Your task to perform on an android device: open device folders in google photos Image 0: 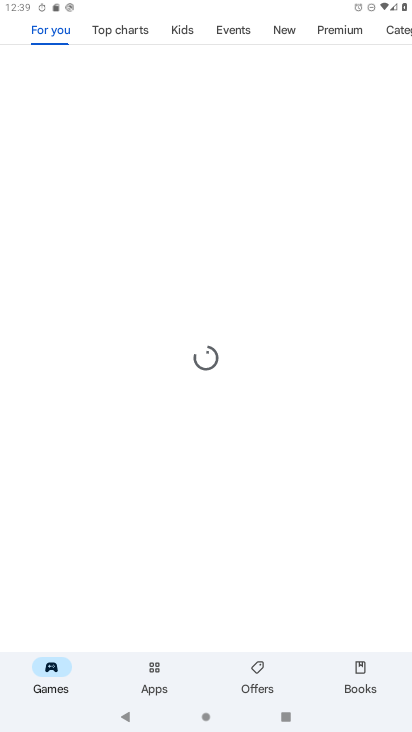
Step 0: drag from (217, 618) to (207, 43)
Your task to perform on an android device: open device folders in google photos Image 1: 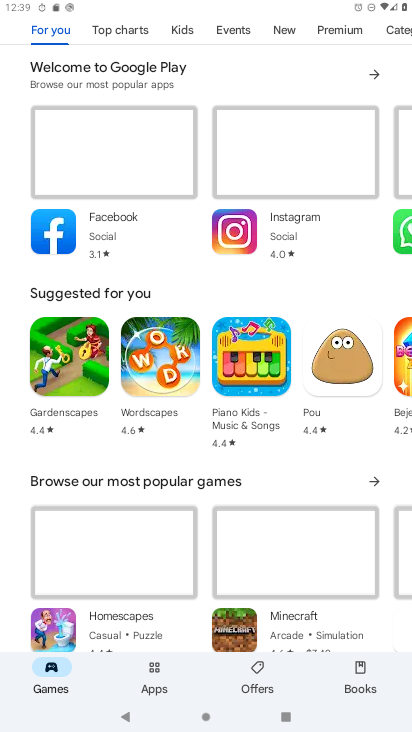
Step 1: press home button
Your task to perform on an android device: open device folders in google photos Image 2: 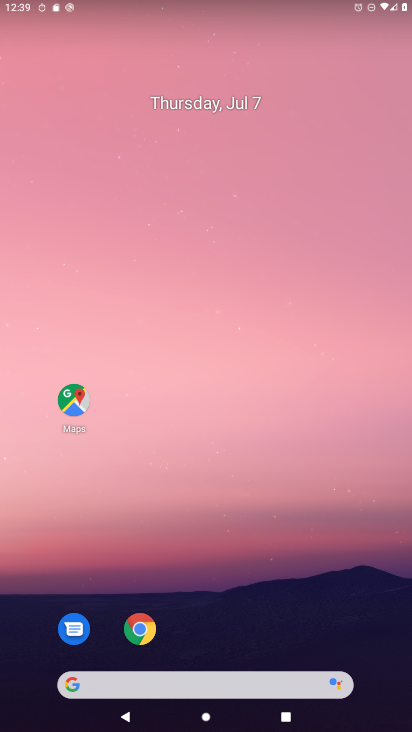
Step 2: drag from (215, 583) to (214, 104)
Your task to perform on an android device: open device folders in google photos Image 3: 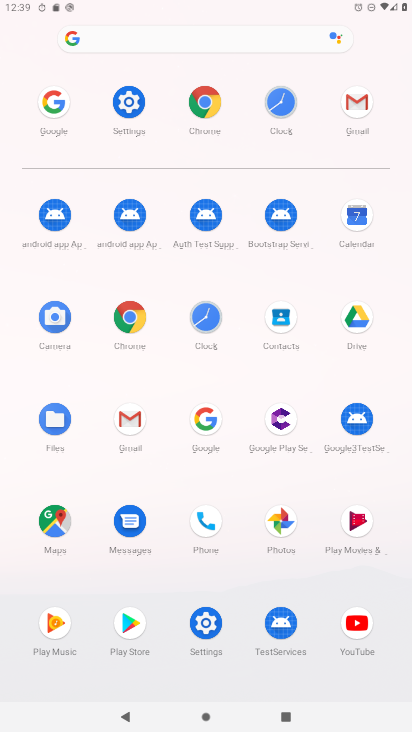
Step 3: click (305, 526)
Your task to perform on an android device: open device folders in google photos Image 4: 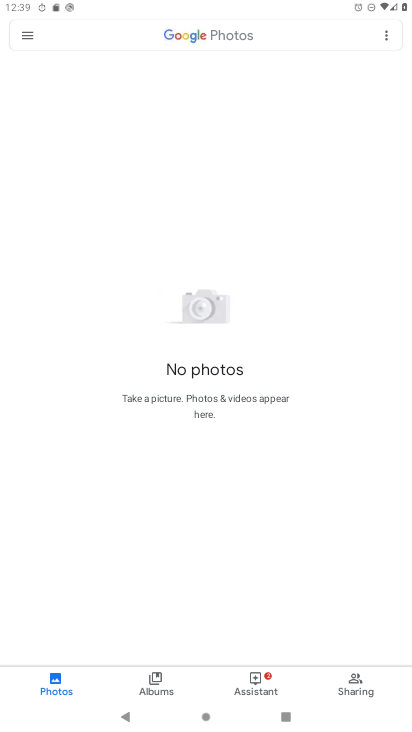
Step 4: click (31, 35)
Your task to perform on an android device: open device folders in google photos Image 5: 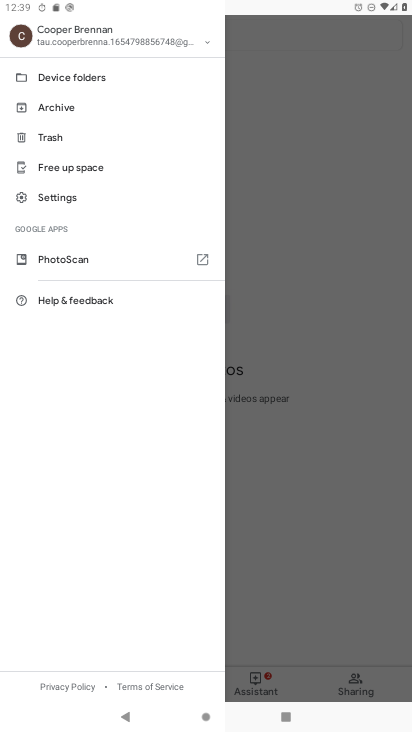
Step 5: click (48, 68)
Your task to perform on an android device: open device folders in google photos Image 6: 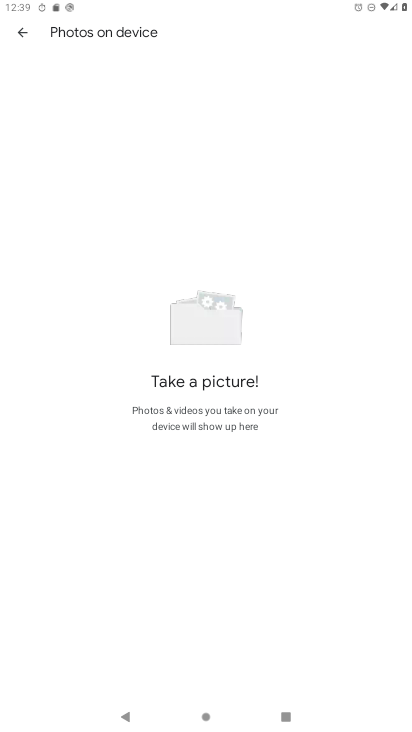
Step 6: task complete